Your task to perform on an android device: Show me productivity apps on the Play Store Image 0: 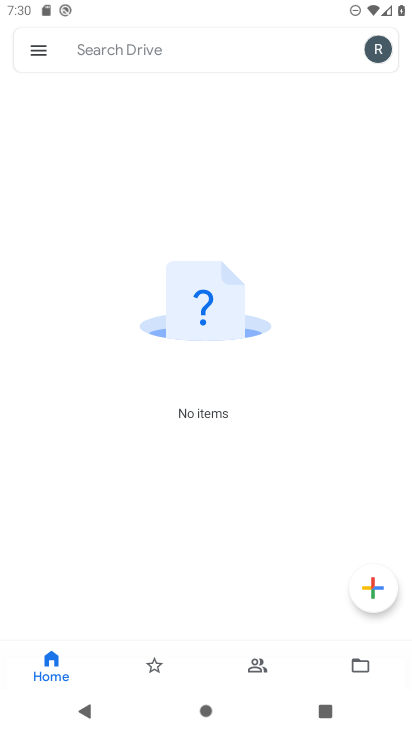
Step 0: press home button
Your task to perform on an android device: Show me productivity apps on the Play Store Image 1: 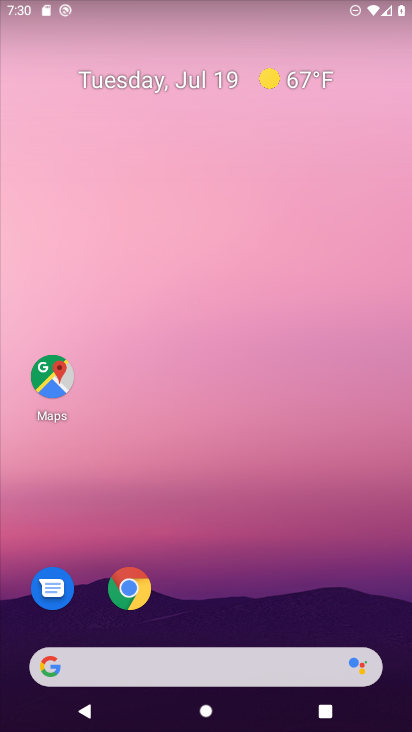
Step 1: drag from (386, 618) to (368, 46)
Your task to perform on an android device: Show me productivity apps on the Play Store Image 2: 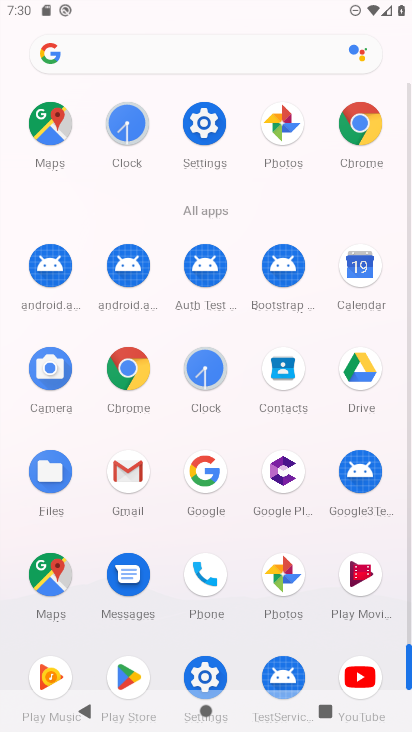
Step 2: drag from (395, 565) to (405, 408)
Your task to perform on an android device: Show me productivity apps on the Play Store Image 3: 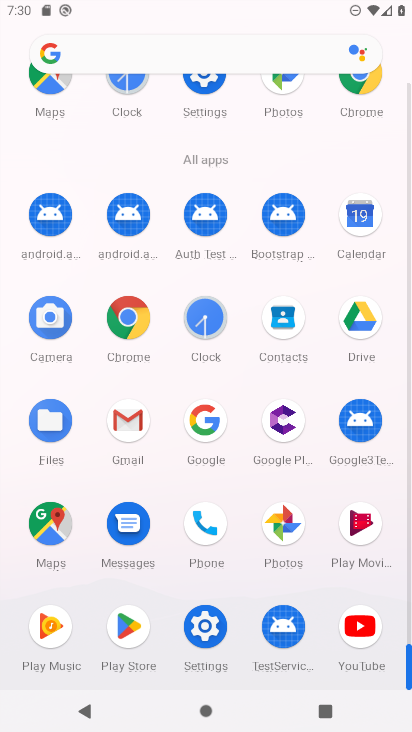
Step 3: click (136, 624)
Your task to perform on an android device: Show me productivity apps on the Play Store Image 4: 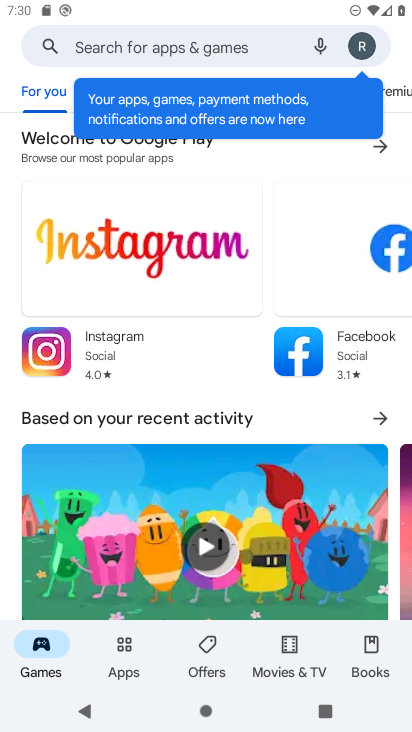
Step 4: click (128, 663)
Your task to perform on an android device: Show me productivity apps on the Play Store Image 5: 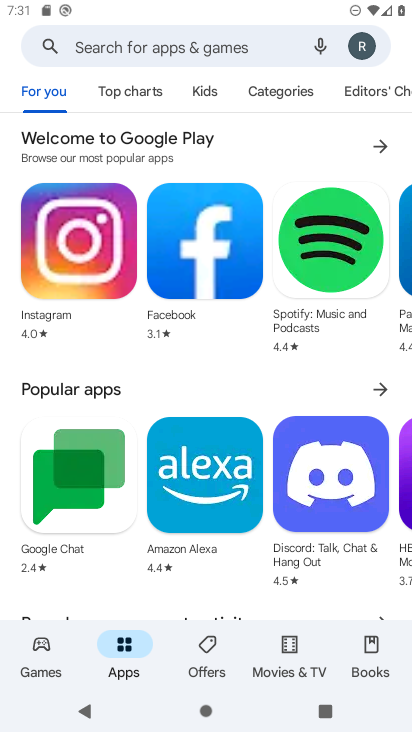
Step 5: task complete